Your task to perform on an android device: move a message to another label in the gmail app Image 0: 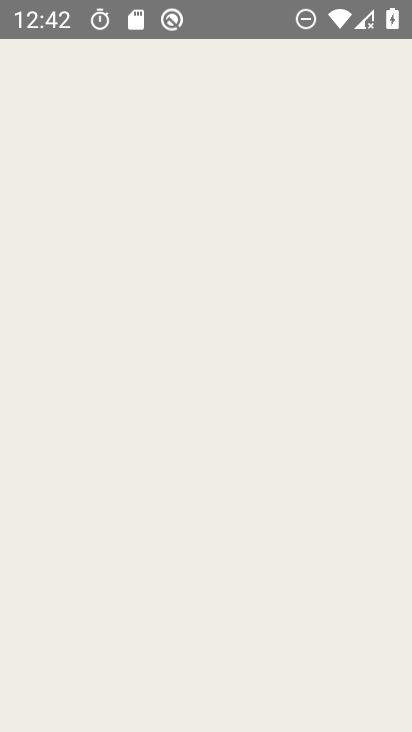
Step 0: click (292, 132)
Your task to perform on an android device: move a message to another label in the gmail app Image 1: 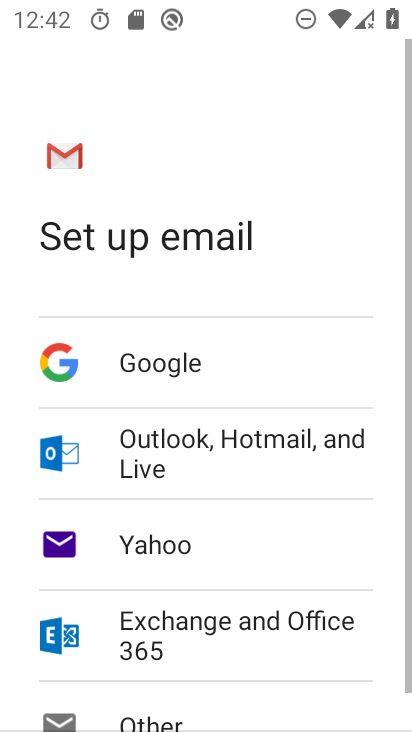
Step 1: press home button
Your task to perform on an android device: move a message to another label in the gmail app Image 2: 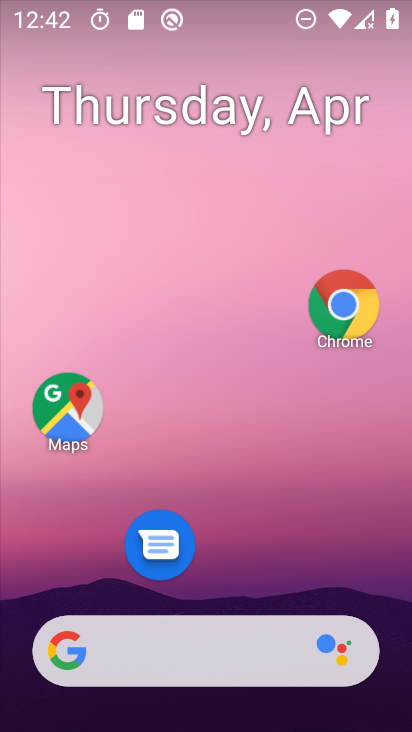
Step 2: drag from (244, 571) to (314, 90)
Your task to perform on an android device: move a message to another label in the gmail app Image 3: 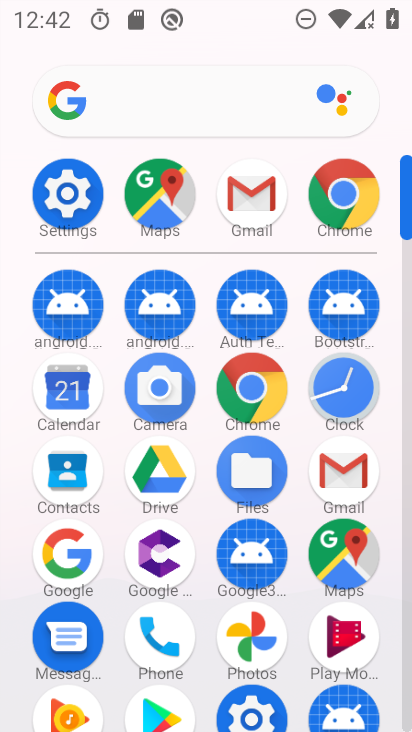
Step 3: click (369, 479)
Your task to perform on an android device: move a message to another label in the gmail app Image 4: 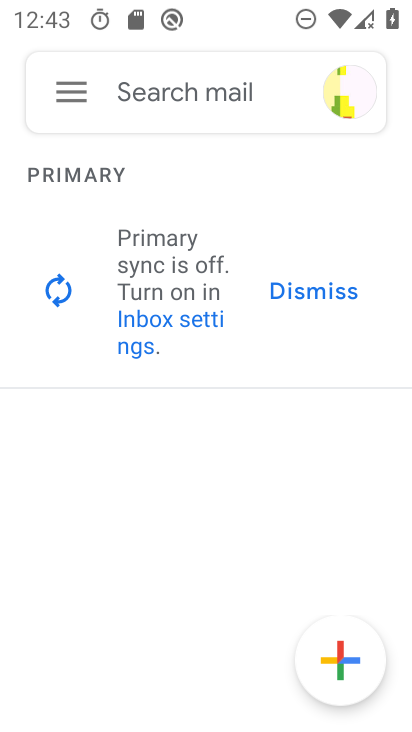
Step 4: click (337, 287)
Your task to perform on an android device: move a message to another label in the gmail app Image 5: 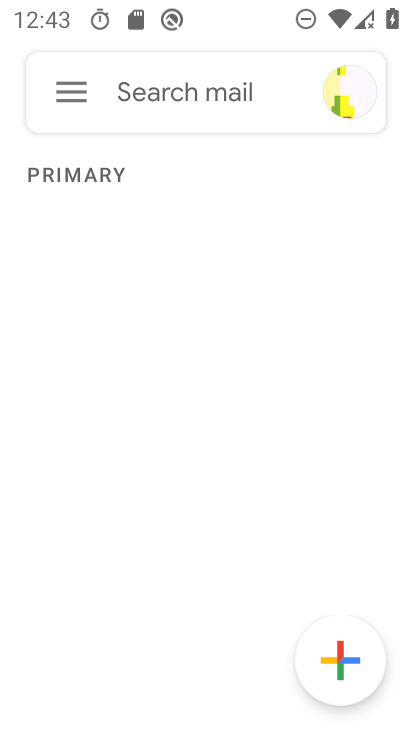
Step 5: click (84, 93)
Your task to perform on an android device: move a message to another label in the gmail app Image 6: 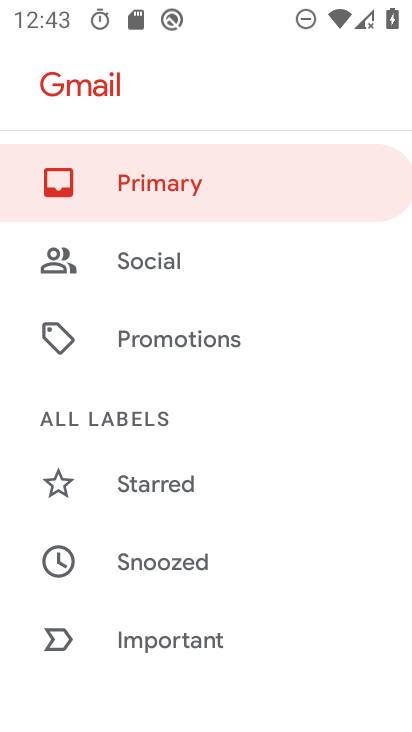
Step 6: drag from (230, 513) to (318, 187)
Your task to perform on an android device: move a message to another label in the gmail app Image 7: 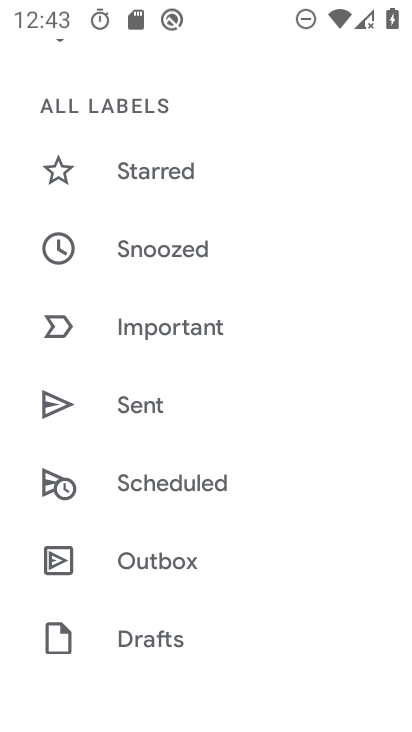
Step 7: drag from (234, 585) to (262, 189)
Your task to perform on an android device: move a message to another label in the gmail app Image 8: 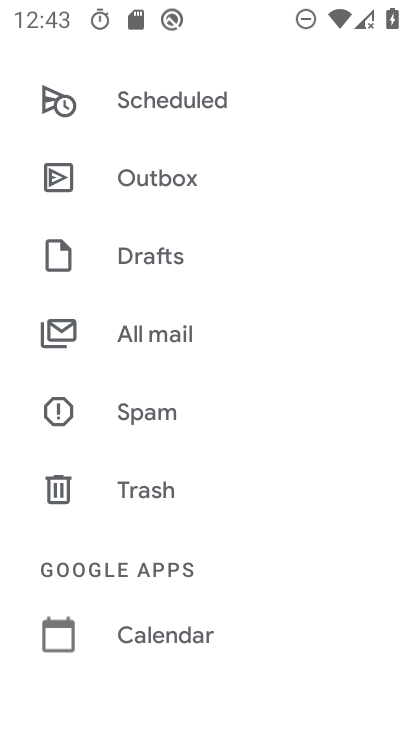
Step 8: drag from (201, 484) to (272, 164)
Your task to perform on an android device: move a message to another label in the gmail app Image 9: 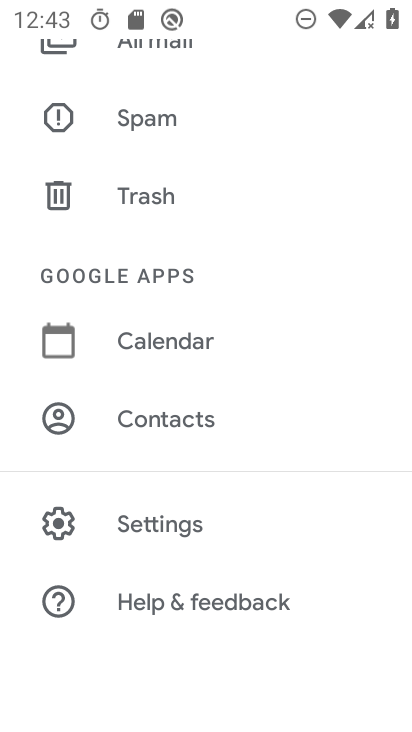
Step 9: drag from (211, 151) to (140, 497)
Your task to perform on an android device: move a message to another label in the gmail app Image 10: 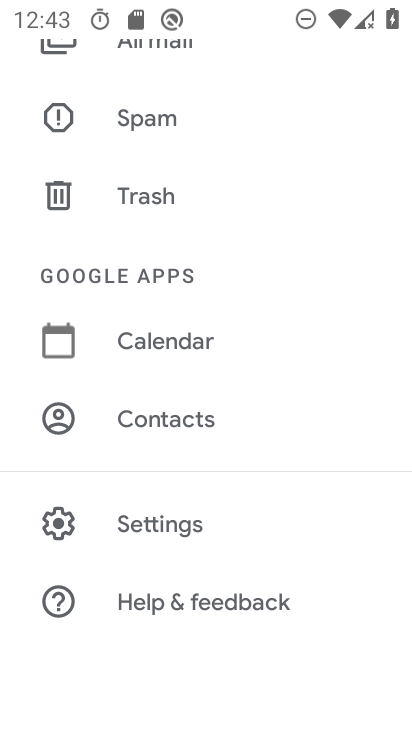
Step 10: drag from (229, 354) to (234, 624)
Your task to perform on an android device: move a message to another label in the gmail app Image 11: 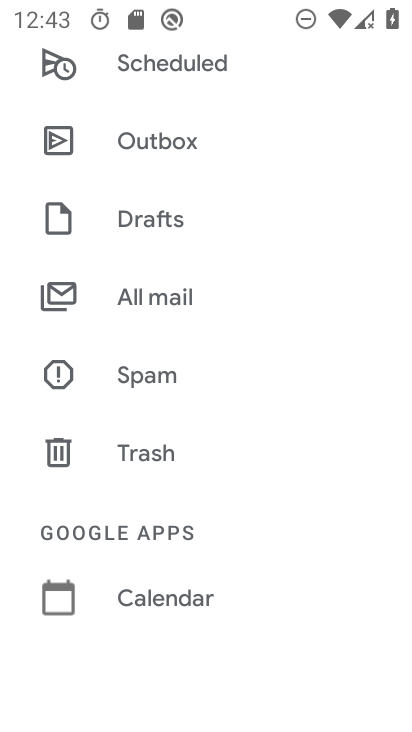
Step 11: click (230, 297)
Your task to perform on an android device: move a message to another label in the gmail app Image 12: 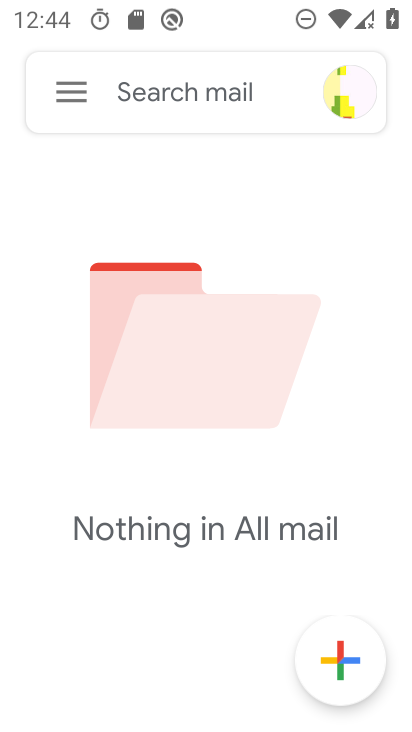
Step 12: task complete